Your task to perform on an android device: Do I have any events tomorrow? Image 0: 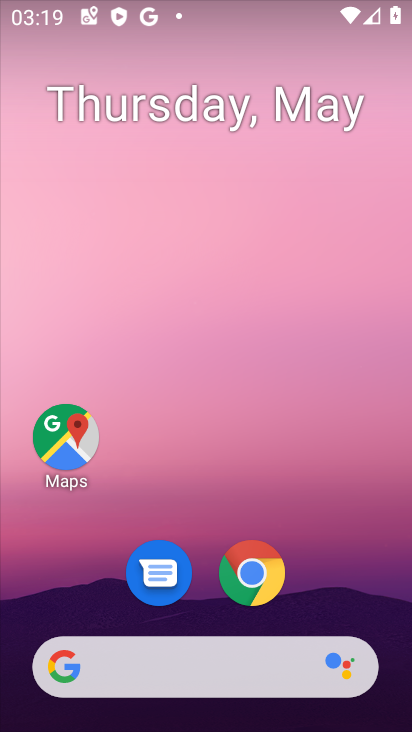
Step 0: drag from (311, 446) to (292, 295)
Your task to perform on an android device: Do I have any events tomorrow? Image 1: 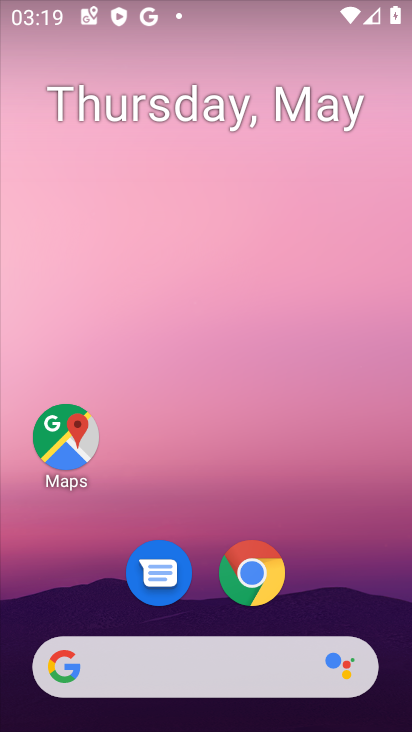
Step 1: drag from (333, 556) to (290, 231)
Your task to perform on an android device: Do I have any events tomorrow? Image 2: 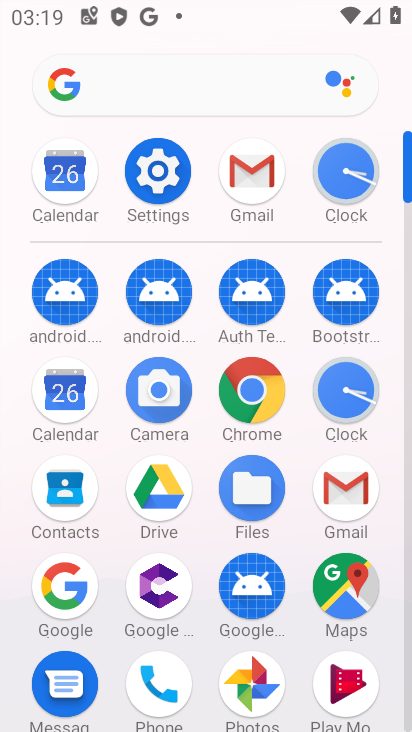
Step 2: click (60, 383)
Your task to perform on an android device: Do I have any events tomorrow? Image 3: 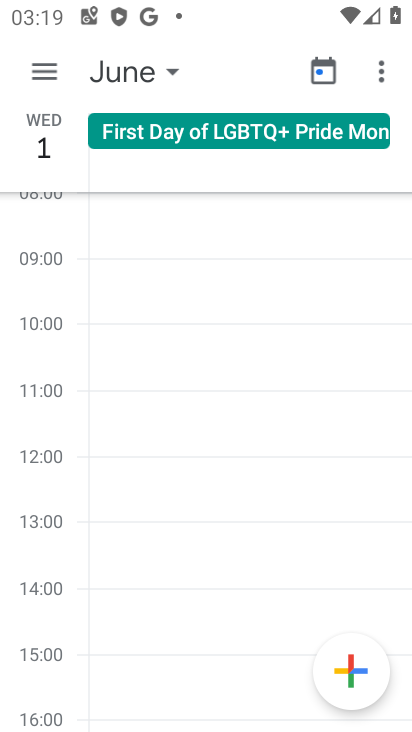
Step 3: click (41, 74)
Your task to perform on an android device: Do I have any events tomorrow? Image 4: 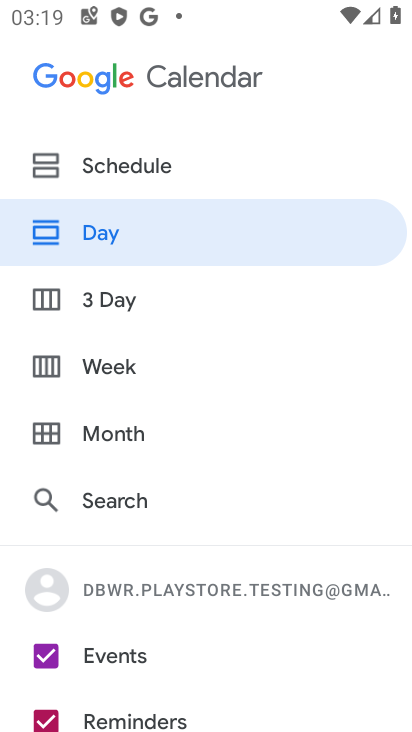
Step 4: click (121, 441)
Your task to perform on an android device: Do I have any events tomorrow? Image 5: 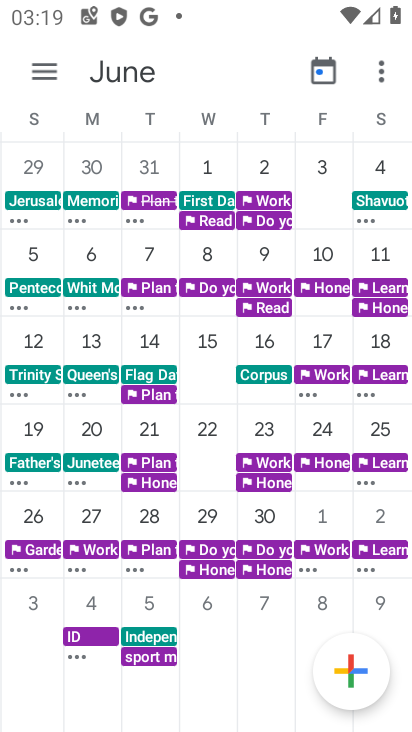
Step 5: drag from (48, 414) to (410, 407)
Your task to perform on an android device: Do I have any events tomorrow? Image 6: 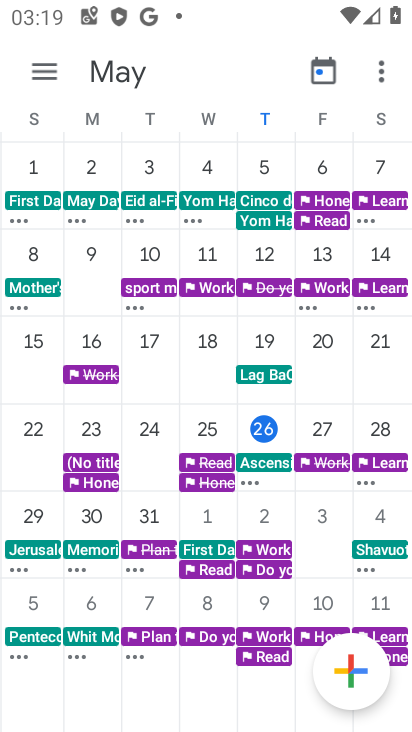
Step 6: click (316, 441)
Your task to perform on an android device: Do I have any events tomorrow? Image 7: 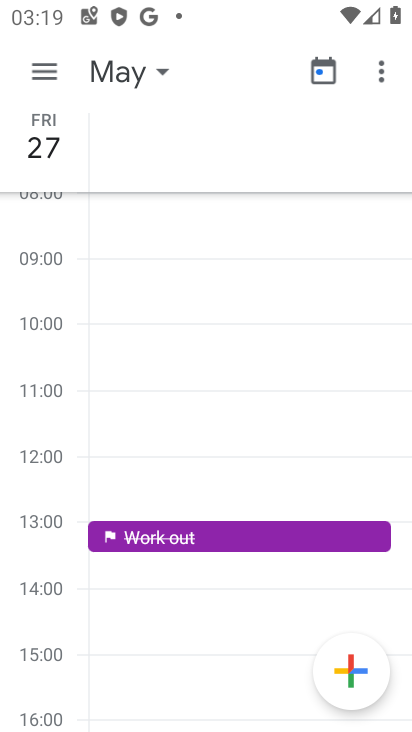
Step 7: task complete